Your task to perform on an android device: turn off smart reply in the gmail app Image 0: 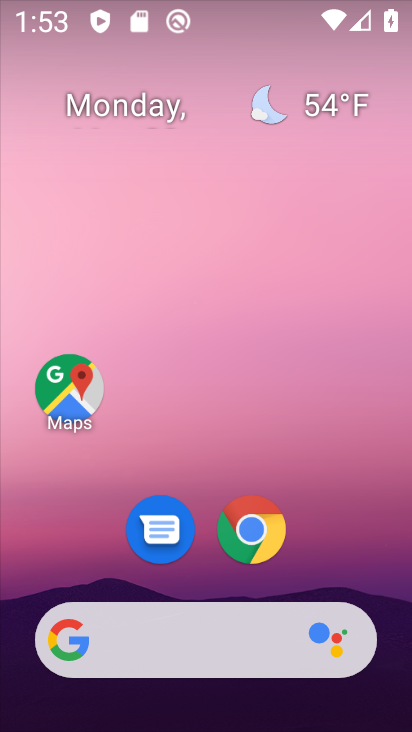
Step 0: drag from (73, 587) to (175, 224)
Your task to perform on an android device: turn off smart reply in the gmail app Image 1: 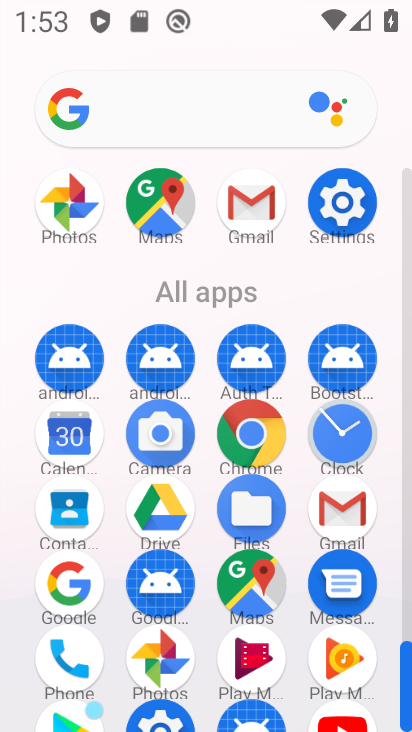
Step 1: click (356, 506)
Your task to perform on an android device: turn off smart reply in the gmail app Image 2: 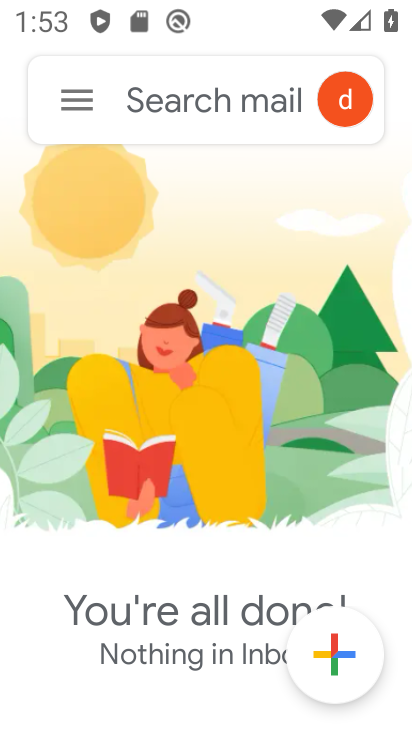
Step 2: click (81, 111)
Your task to perform on an android device: turn off smart reply in the gmail app Image 3: 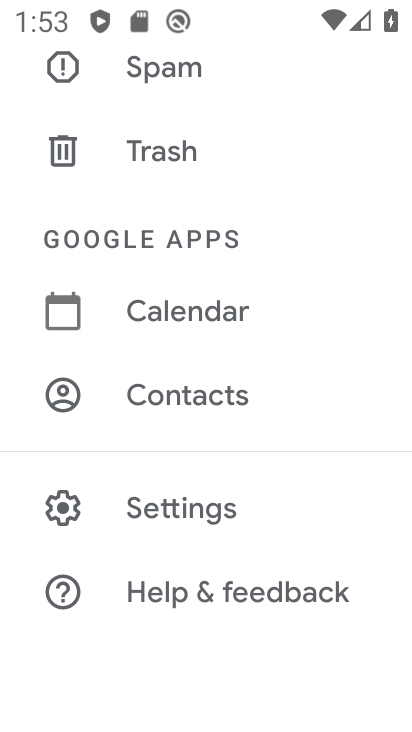
Step 3: click (190, 511)
Your task to perform on an android device: turn off smart reply in the gmail app Image 4: 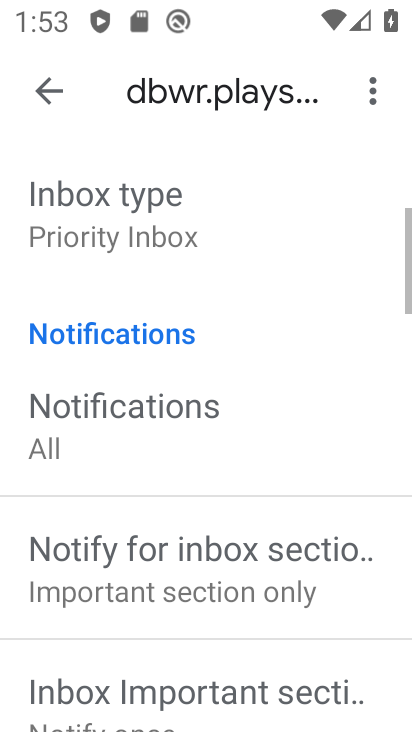
Step 4: drag from (209, 561) to (281, 233)
Your task to perform on an android device: turn off smart reply in the gmail app Image 5: 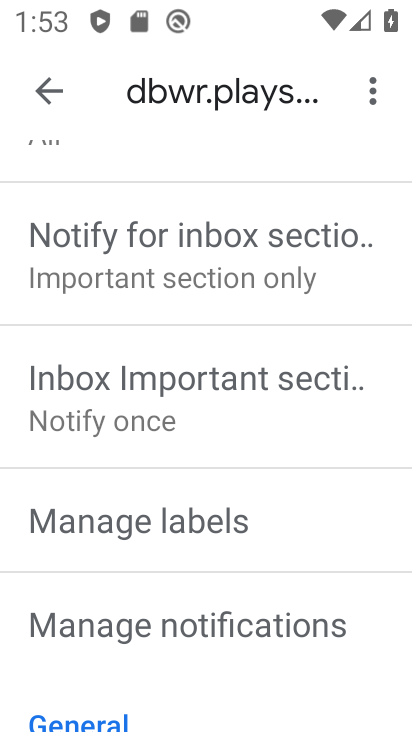
Step 5: drag from (262, 274) to (352, 192)
Your task to perform on an android device: turn off smart reply in the gmail app Image 6: 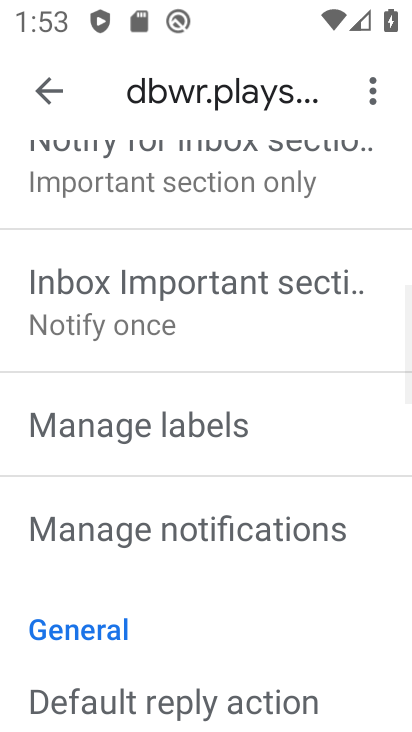
Step 6: drag from (213, 635) to (310, 207)
Your task to perform on an android device: turn off smart reply in the gmail app Image 7: 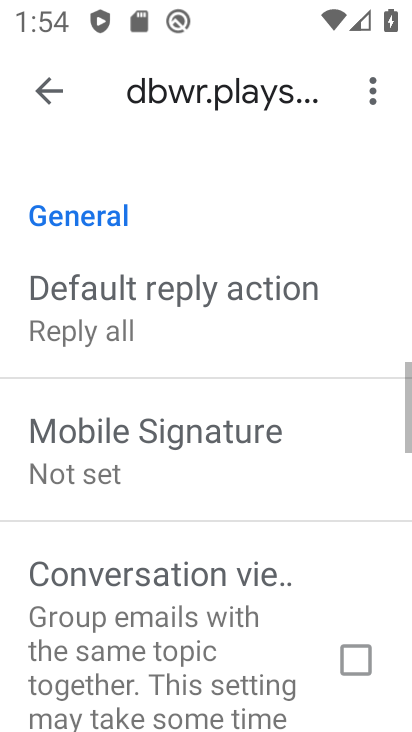
Step 7: drag from (217, 642) to (342, 217)
Your task to perform on an android device: turn off smart reply in the gmail app Image 8: 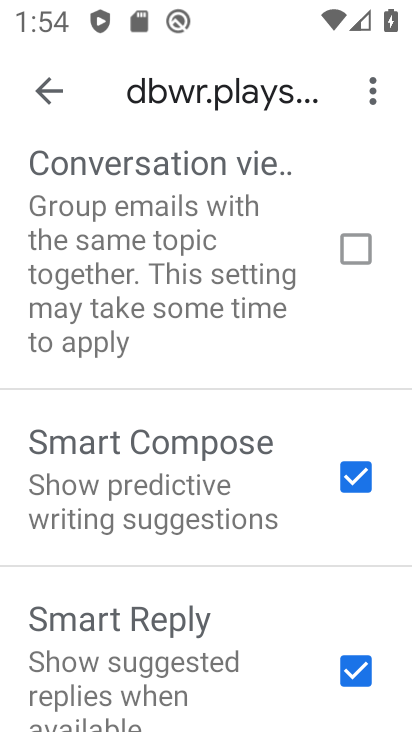
Step 8: drag from (197, 644) to (248, 404)
Your task to perform on an android device: turn off smart reply in the gmail app Image 9: 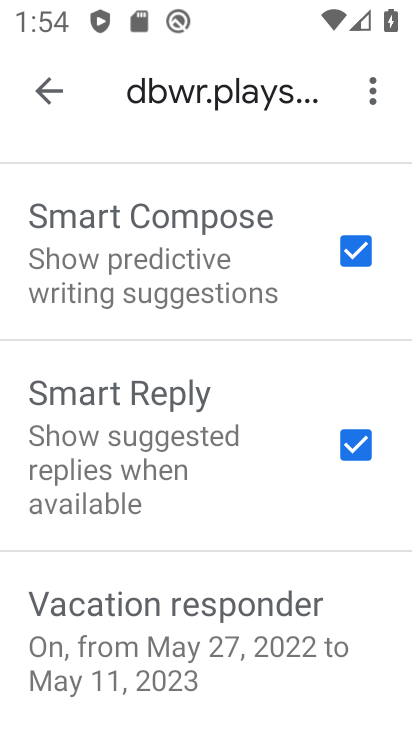
Step 9: click (370, 441)
Your task to perform on an android device: turn off smart reply in the gmail app Image 10: 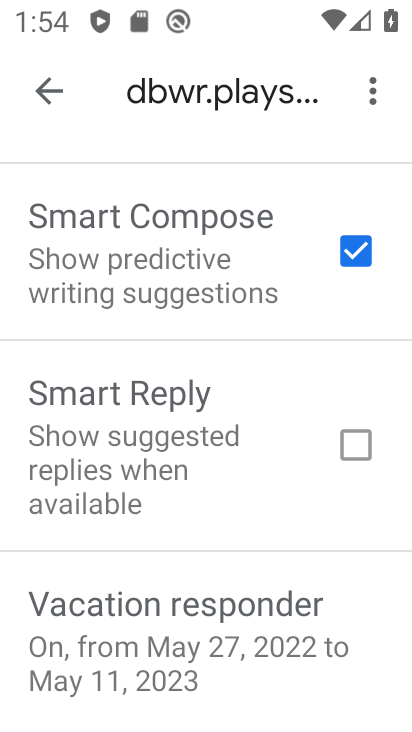
Step 10: task complete